Your task to perform on an android device: install app "File Manager" Image 0: 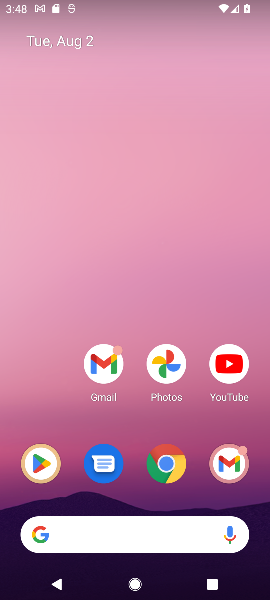
Step 0: click (43, 468)
Your task to perform on an android device: install app "File Manager" Image 1: 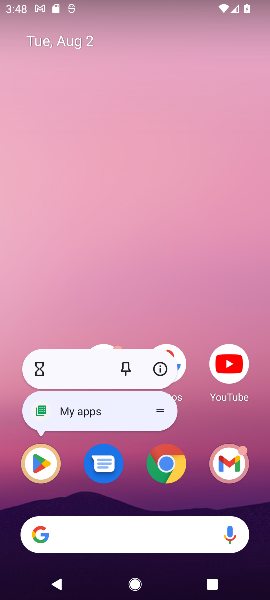
Step 1: click (38, 462)
Your task to perform on an android device: install app "File Manager" Image 2: 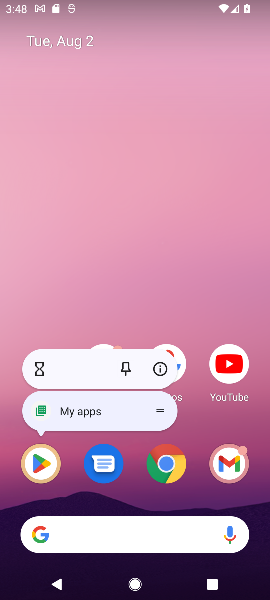
Step 2: click (38, 462)
Your task to perform on an android device: install app "File Manager" Image 3: 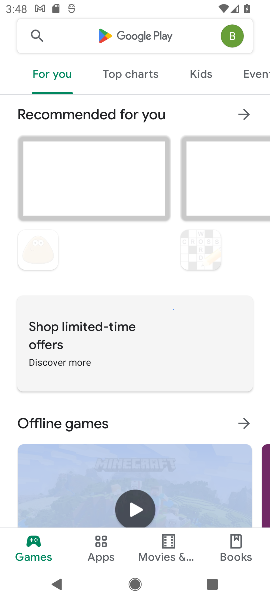
Step 3: click (169, 37)
Your task to perform on an android device: install app "File Manager" Image 4: 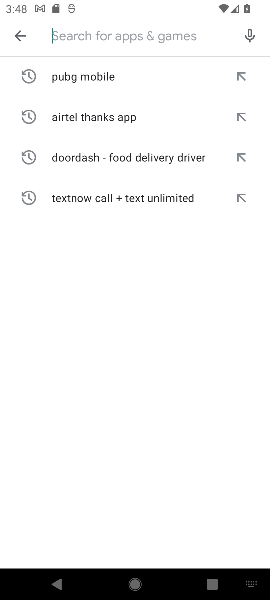
Step 4: type "File Manager"
Your task to perform on an android device: install app "File Manager" Image 5: 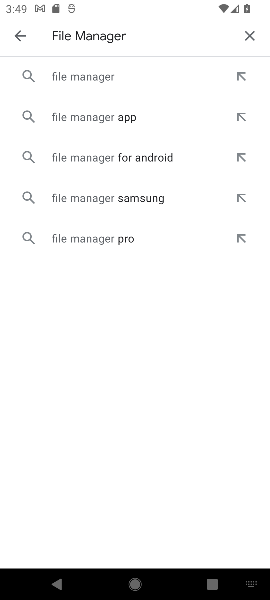
Step 5: click (95, 76)
Your task to perform on an android device: install app "File Manager" Image 6: 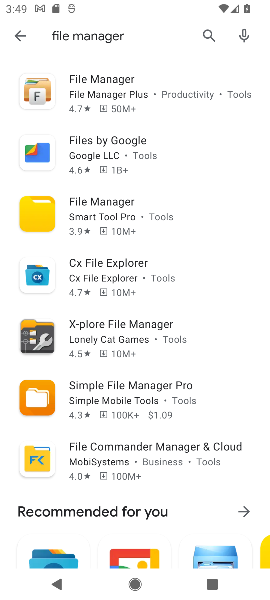
Step 6: click (99, 95)
Your task to perform on an android device: install app "File Manager" Image 7: 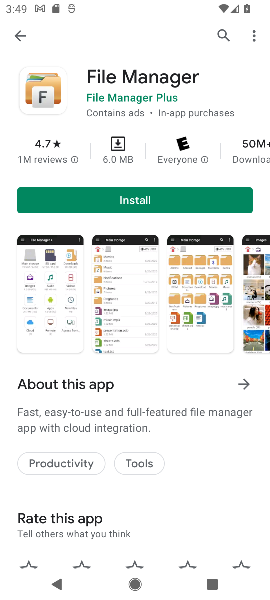
Step 7: click (141, 200)
Your task to perform on an android device: install app "File Manager" Image 8: 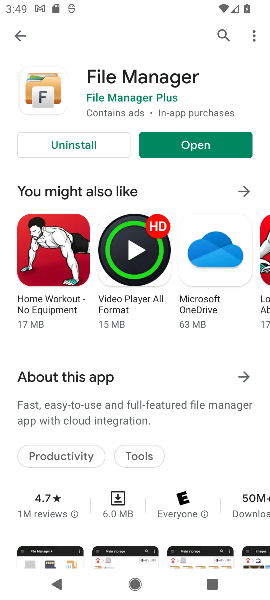
Step 8: task complete